Your task to perform on an android device: What's the US dollar exchange rate against the Australian Dollar? Image 0: 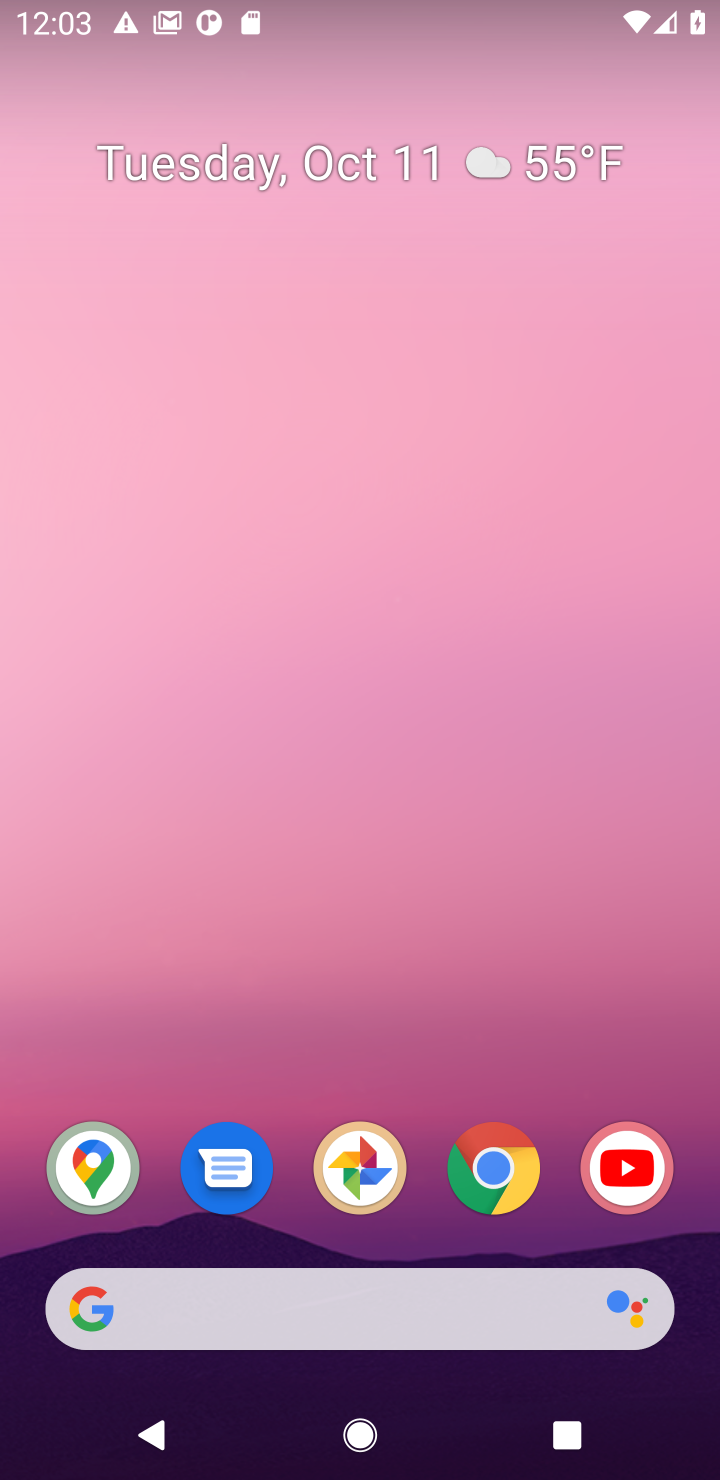
Step 0: drag from (369, 850) to (509, 188)
Your task to perform on an android device: What's the US dollar exchange rate against the Australian Dollar? Image 1: 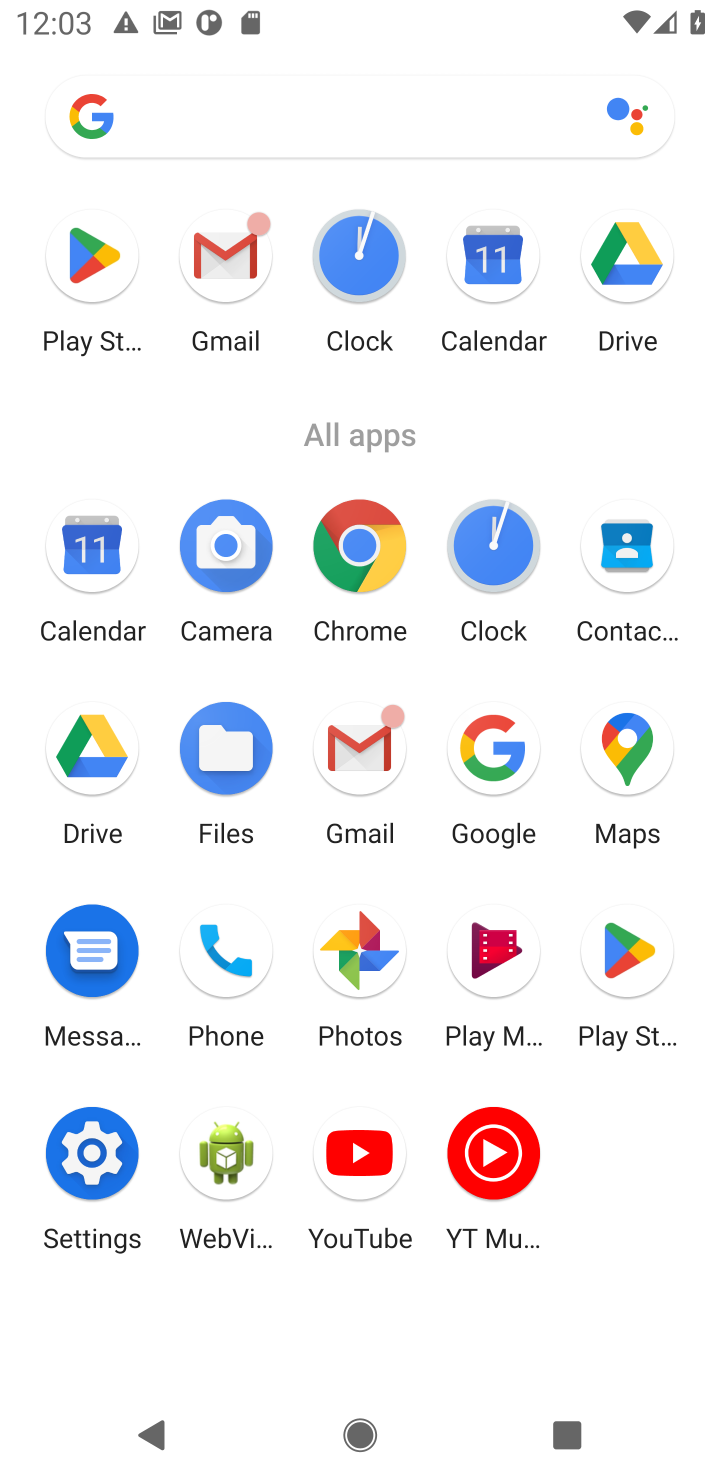
Step 1: click (483, 752)
Your task to perform on an android device: What's the US dollar exchange rate against the Australian Dollar? Image 2: 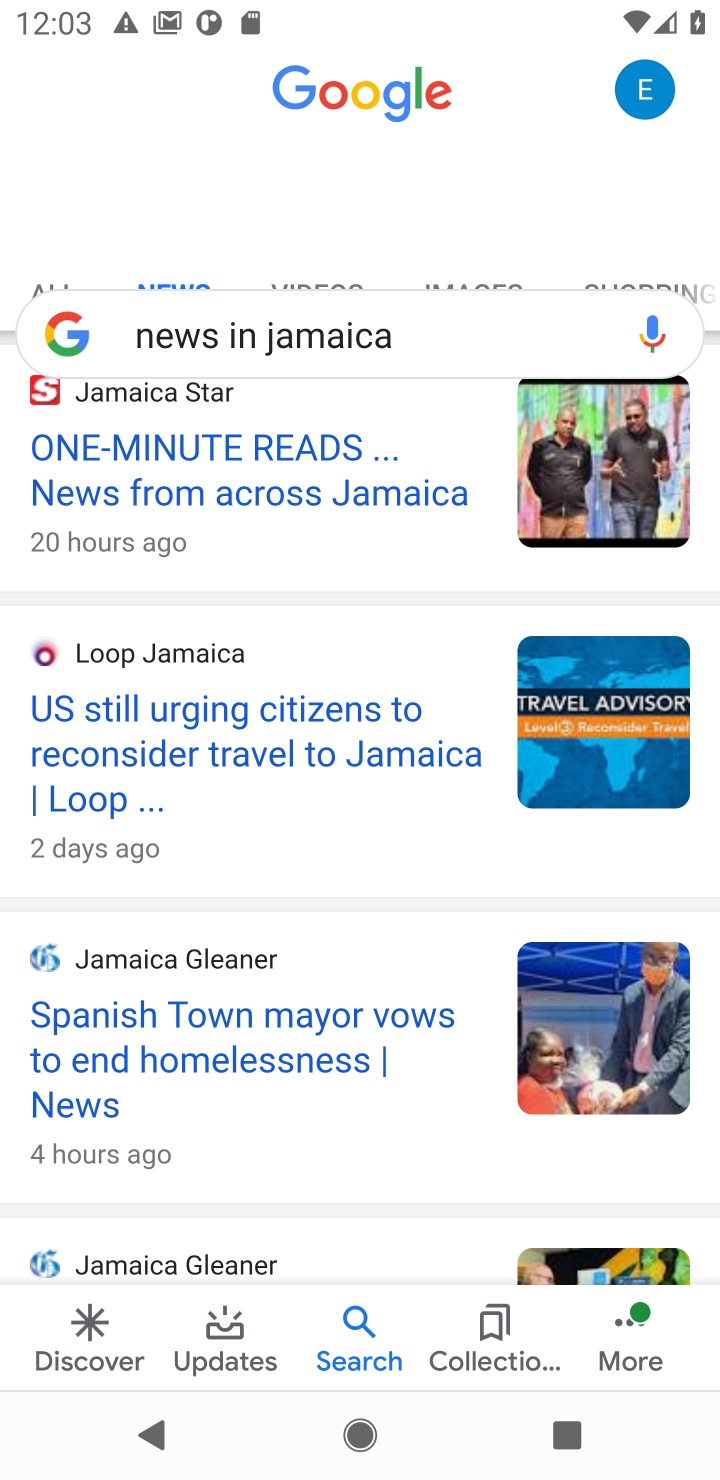
Step 2: click (423, 353)
Your task to perform on an android device: What's the US dollar exchange rate against the Australian Dollar? Image 3: 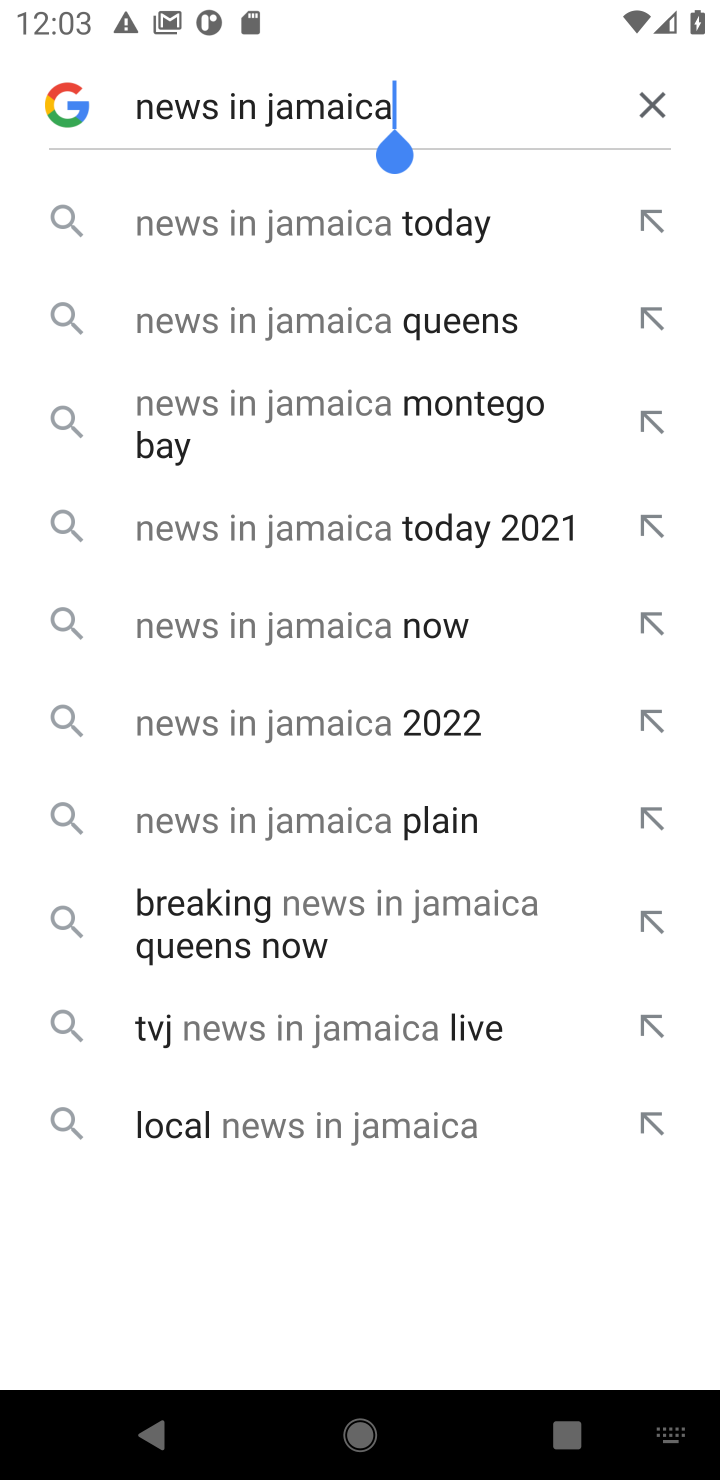
Step 3: click (636, 119)
Your task to perform on an android device: What's the US dollar exchange rate against the Australian Dollar? Image 4: 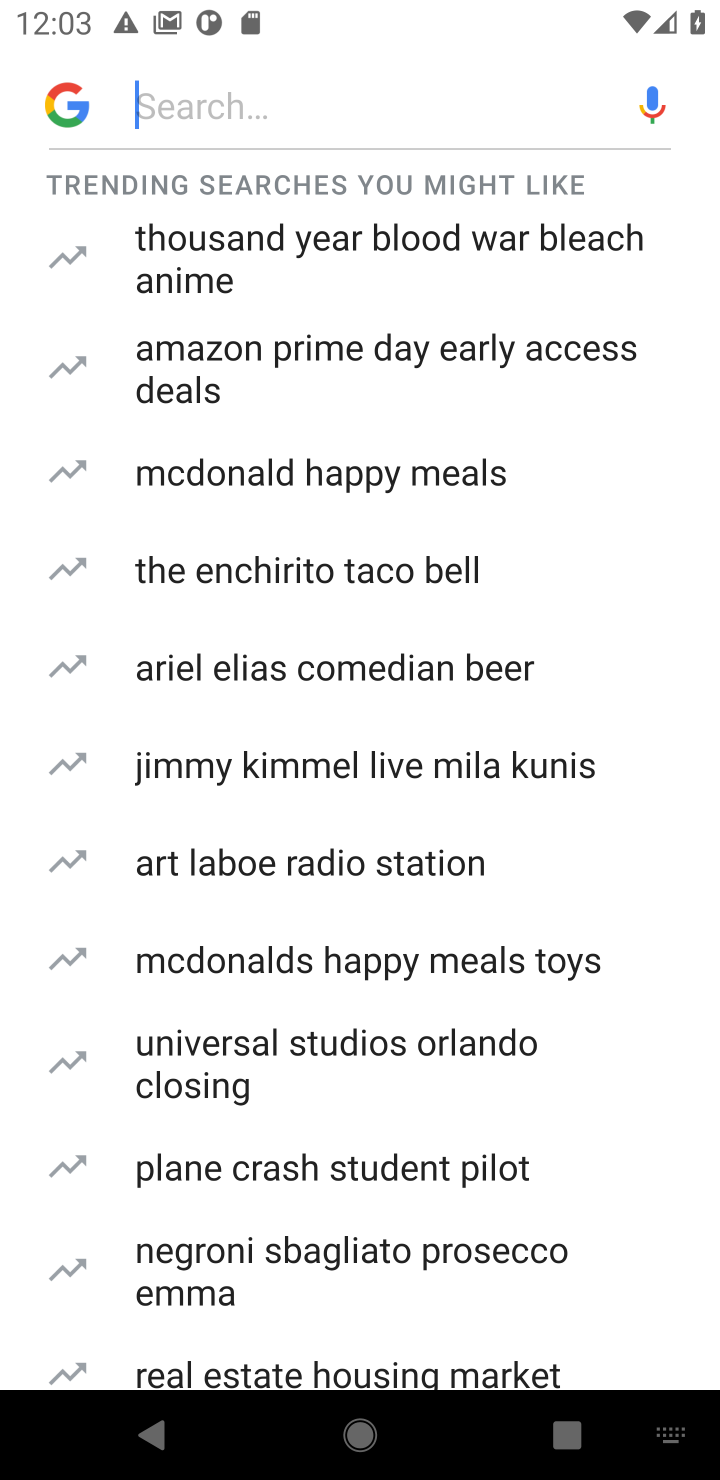
Step 4: type "What's the US dollar exchange rate against the Australian Dollar?"
Your task to perform on an android device: What's the US dollar exchange rate against the Australian Dollar? Image 5: 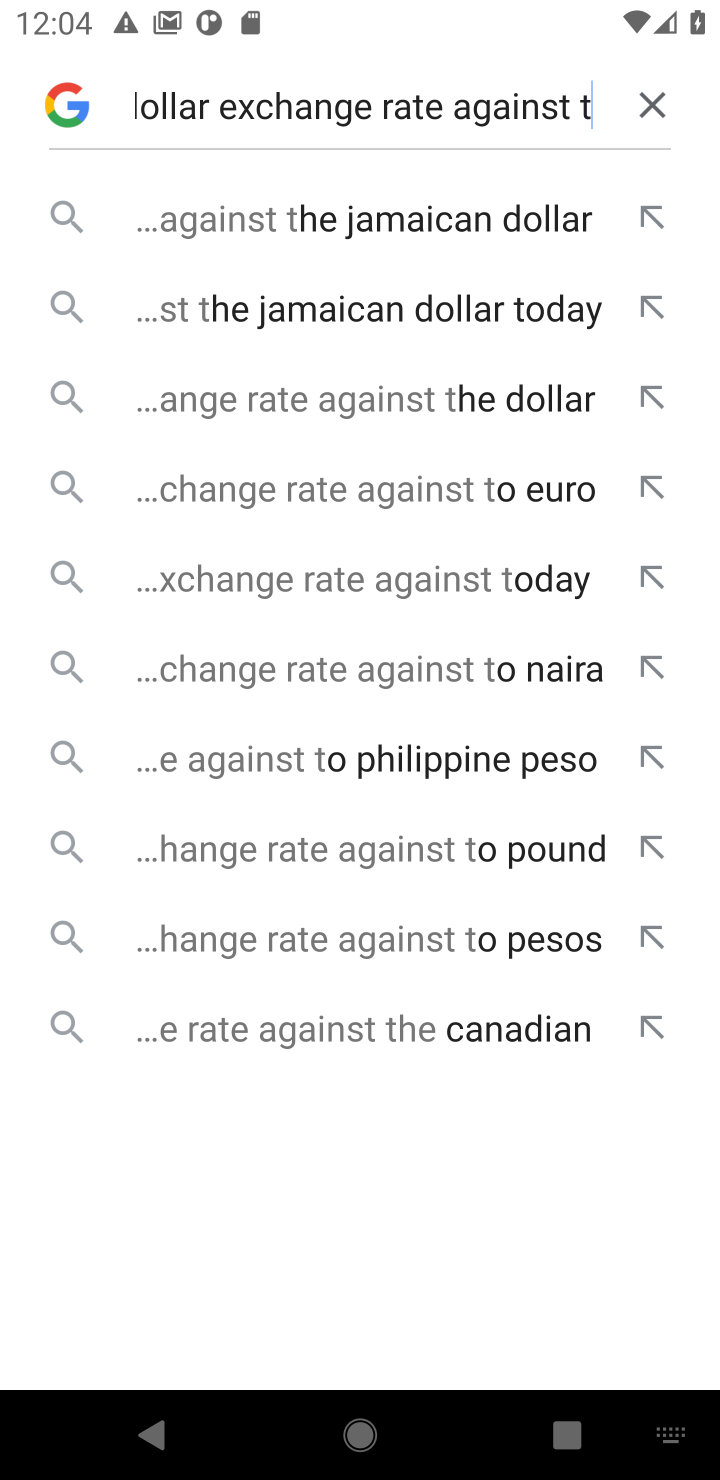
Step 5: click (463, 304)
Your task to perform on an android device: What's the US dollar exchange rate against the Australian Dollar? Image 6: 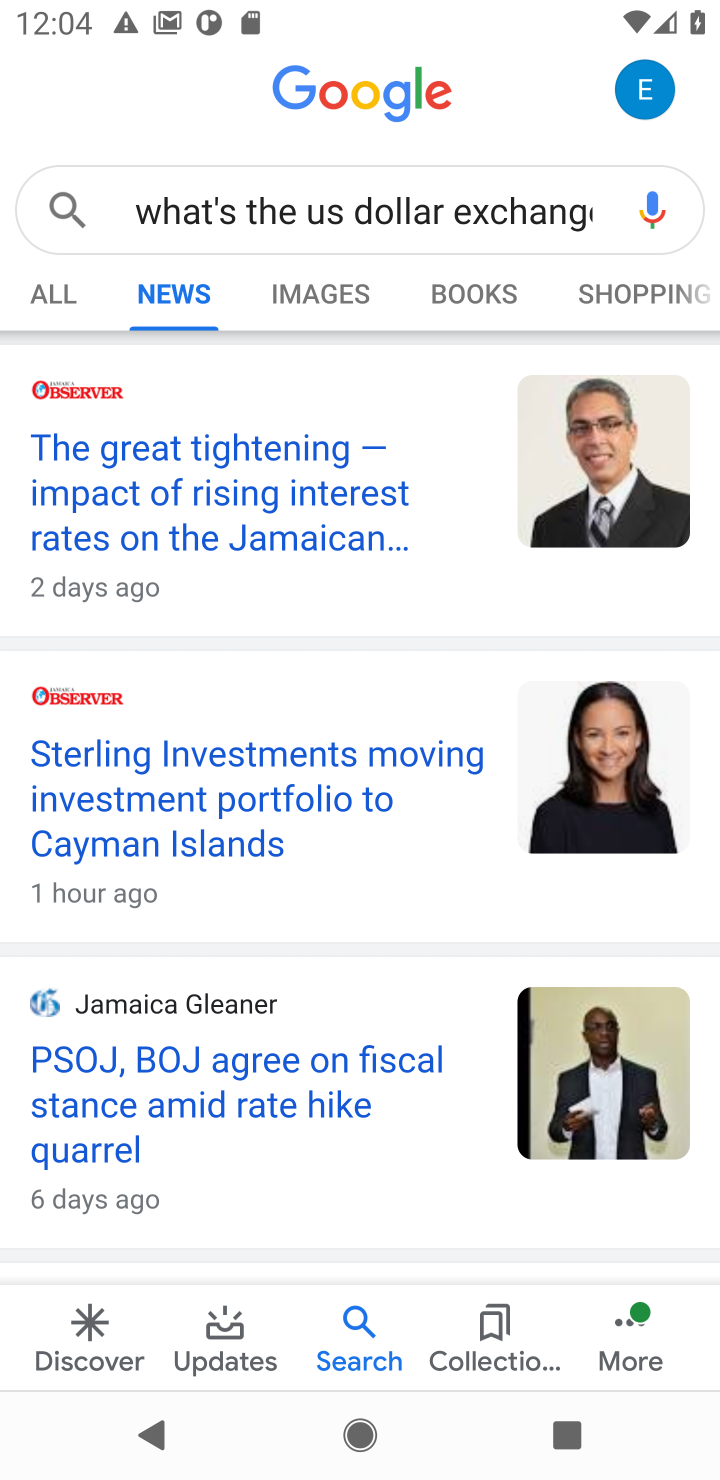
Step 6: click (31, 306)
Your task to perform on an android device: What's the US dollar exchange rate against the Australian Dollar? Image 7: 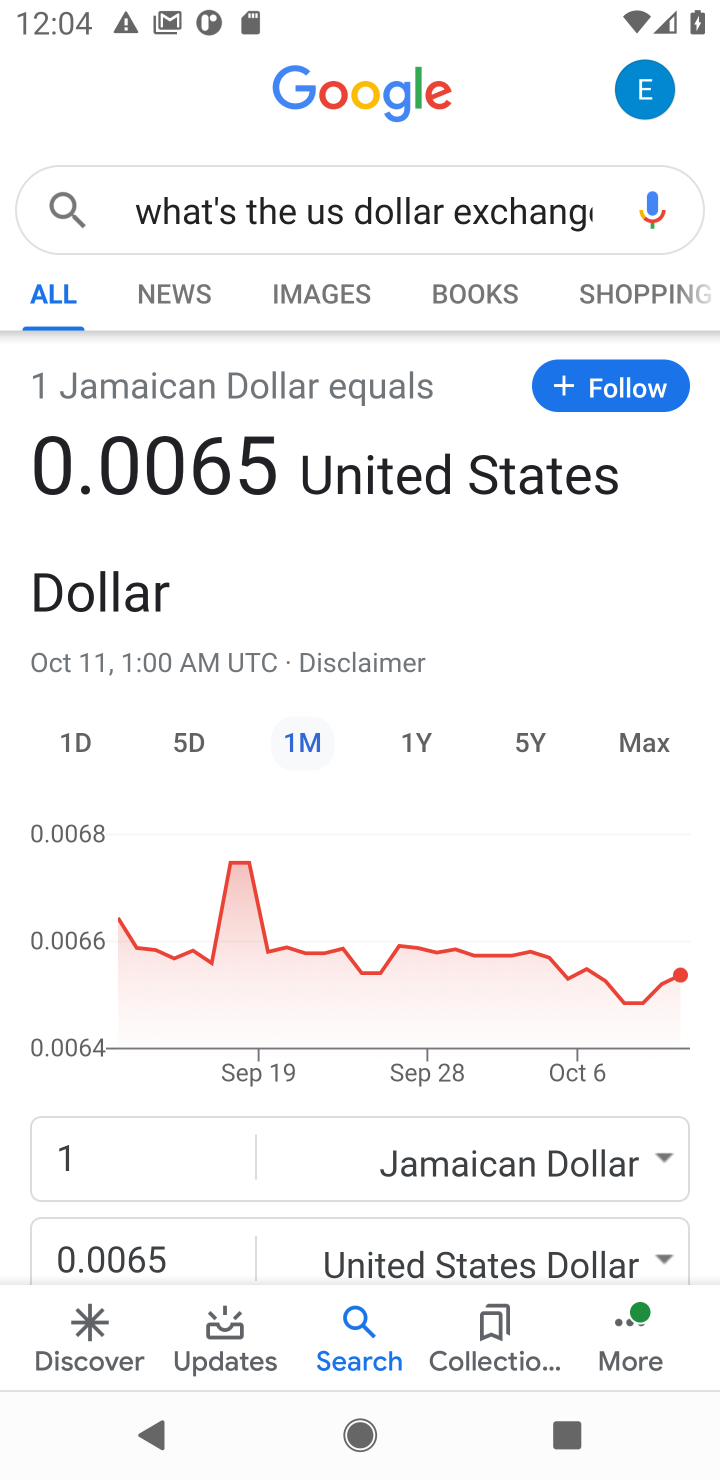
Step 7: task complete